Your task to perform on an android device: Go to sound settings Image 0: 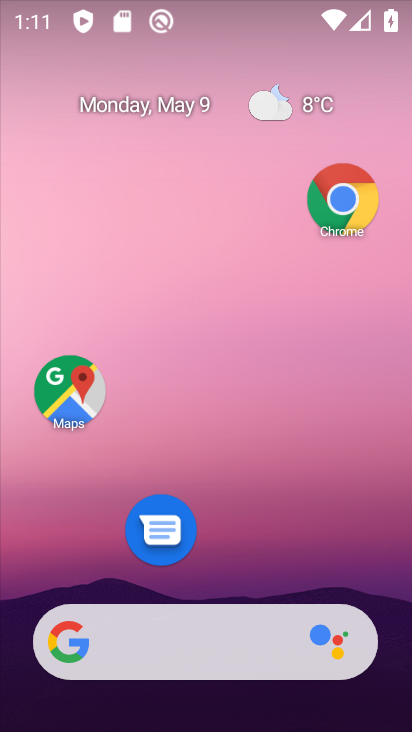
Step 0: drag from (252, 546) to (256, 101)
Your task to perform on an android device: Go to sound settings Image 1: 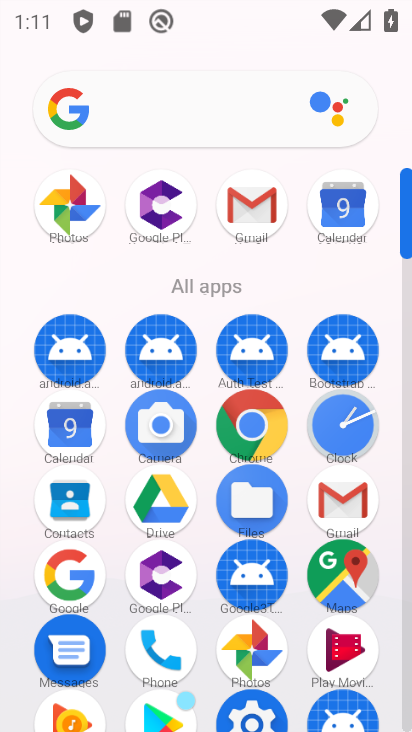
Step 1: drag from (204, 584) to (224, 297)
Your task to perform on an android device: Go to sound settings Image 2: 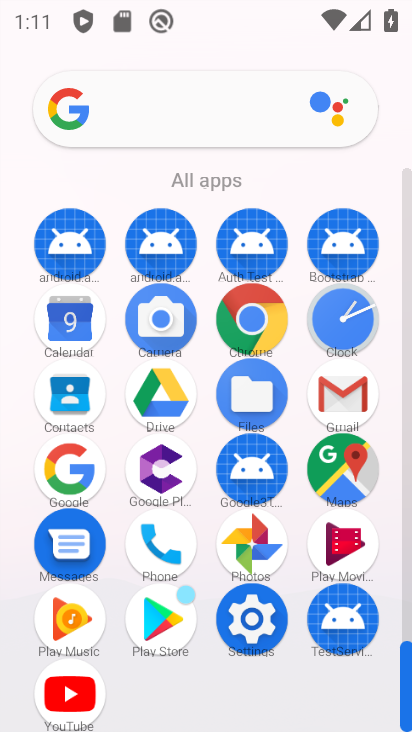
Step 2: click (240, 617)
Your task to perform on an android device: Go to sound settings Image 3: 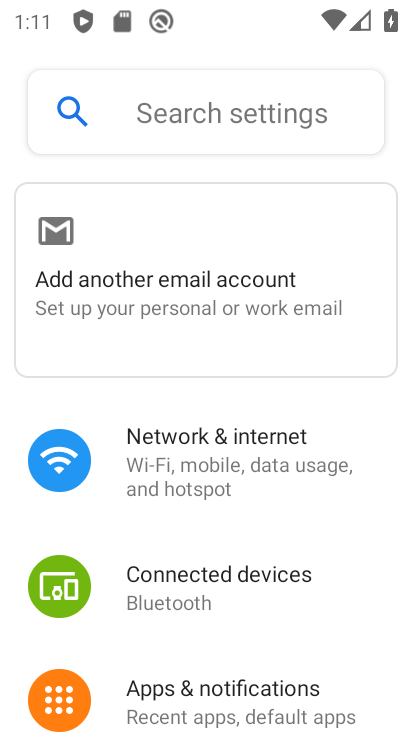
Step 3: drag from (237, 549) to (255, 215)
Your task to perform on an android device: Go to sound settings Image 4: 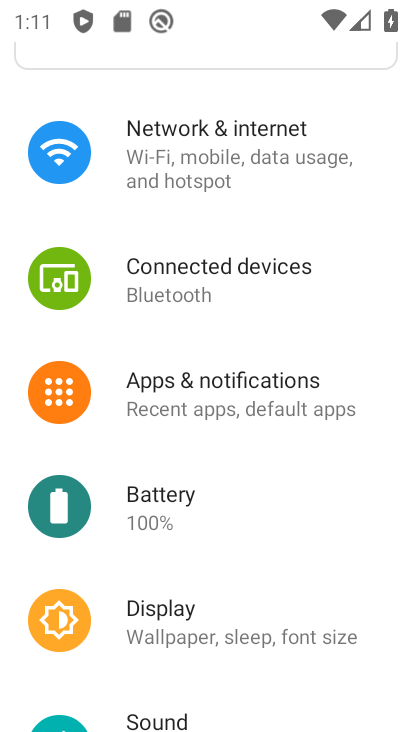
Step 4: drag from (229, 568) to (241, 432)
Your task to perform on an android device: Go to sound settings Image 5: 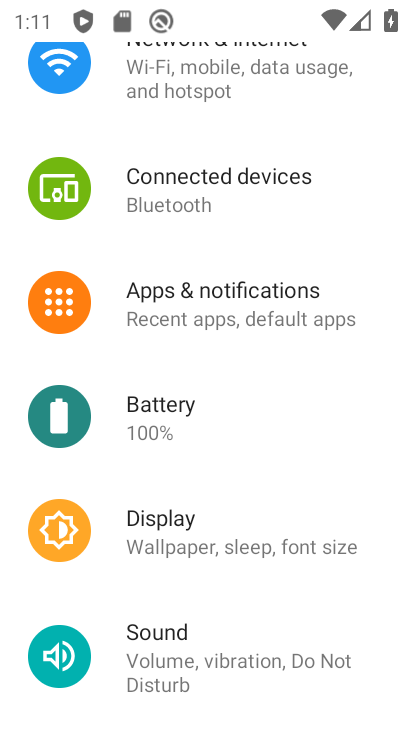
Step 5: click (191, 648)
Your task to perform on an android device: Go to sound settings Image 6: 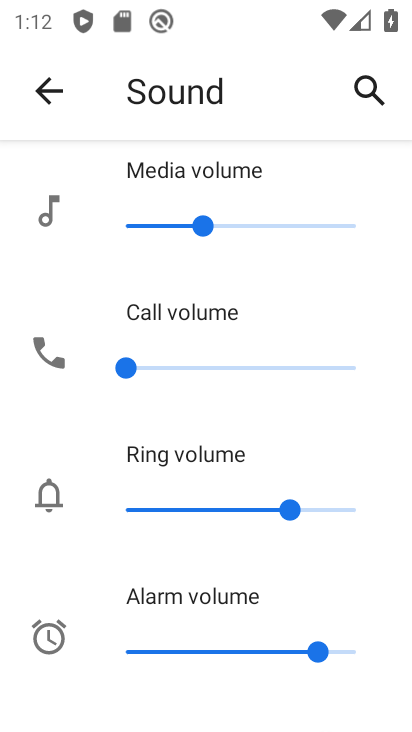
Step 6: task complete